Your task to perform on an android device: turn off notifications settings in the gmail app Image 0: 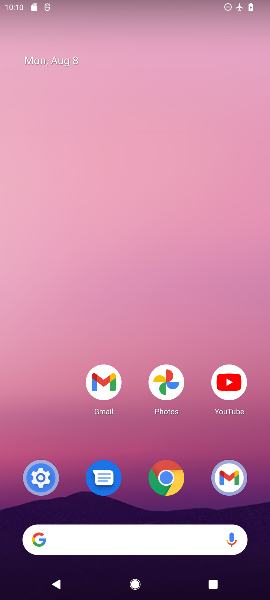
Step 0: click (109, 403)
Your task to perform on an android device: turn off notifications settings in the gmail app Image 1: 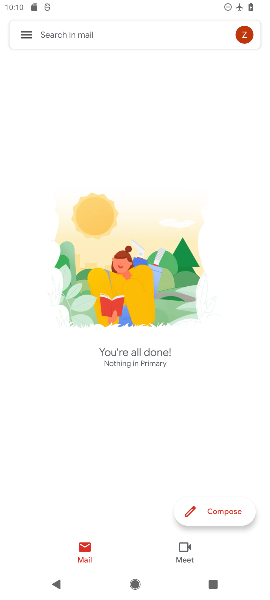
Step 1: click (16, 34)
Your task to perform on an android device: turn off notifications settings in the gmail app Image 2: 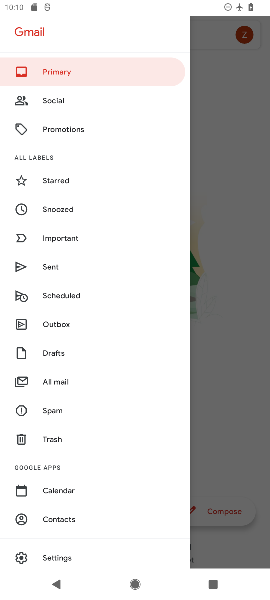
Step 2: click (66, 550)
Your task to perform on an android device: turn off notifications settings in the gmail app Image 3: 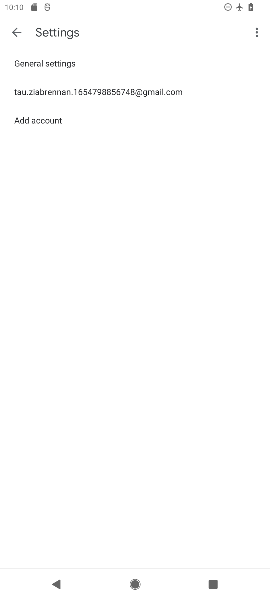
Step 3: click (39, 70)
Your task to perform on an android device: turn off notifications settings in the gmail app Image 4: 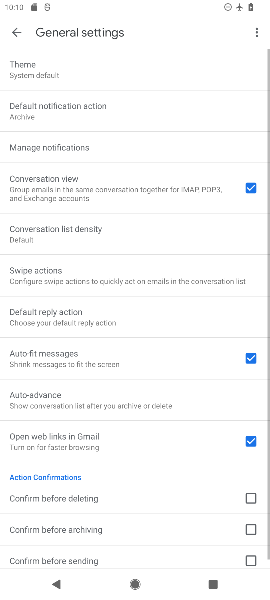
Step 4: click (21, 142)
Your task to perform on an android device: turn off notifications settings in the gmail app Image 5: 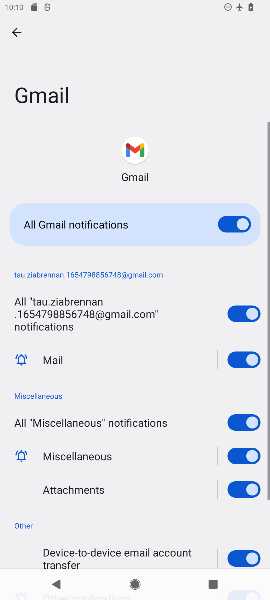
Step 5: click (234, 222)
Your task to perform on an android device: turn off notifications settings in the gmail app Image 6: 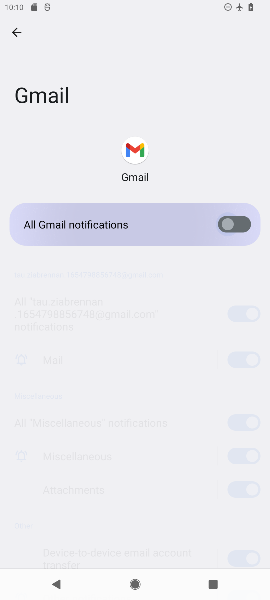
Step 6: task complete